Your task to perform on an android device: turn on wifi Image 0: 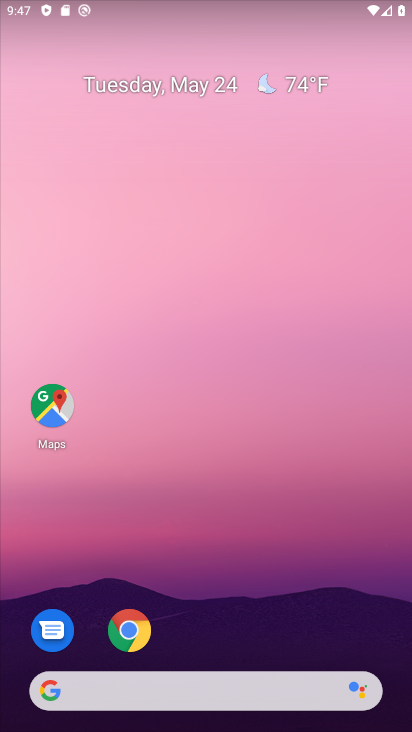
Step 0: drag from (352, 0) to (400, 499)
Your task to perform on an android device: turn on wifi Image 1: 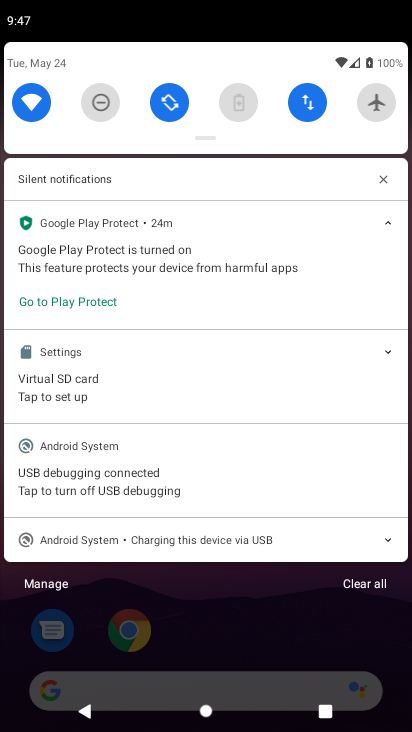
Step 1: task complete